Your task to perform on an android device: Open internet settings Image 0: 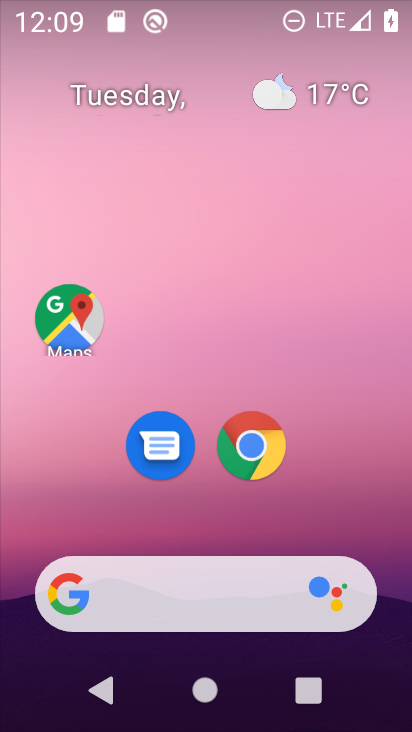
Step 0: drag from (400, 598) to (349, 193)
Your task to perform on an android device: Open internet settings Image 1: 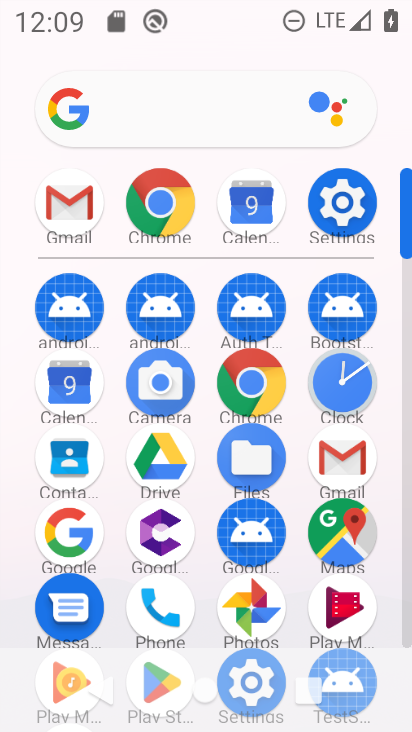
Step 1: click (408, 625)
Your task to perform on an android device: Open internet settings Image 2: 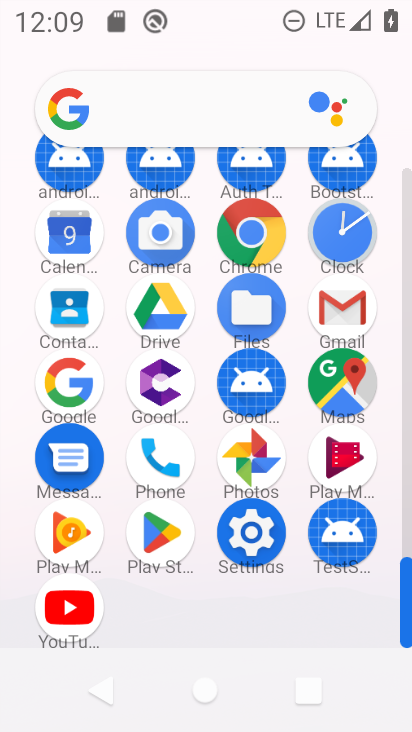
Step 2: click (250, 533)
Your task to perform on an android device: Open internet settings Image 3: 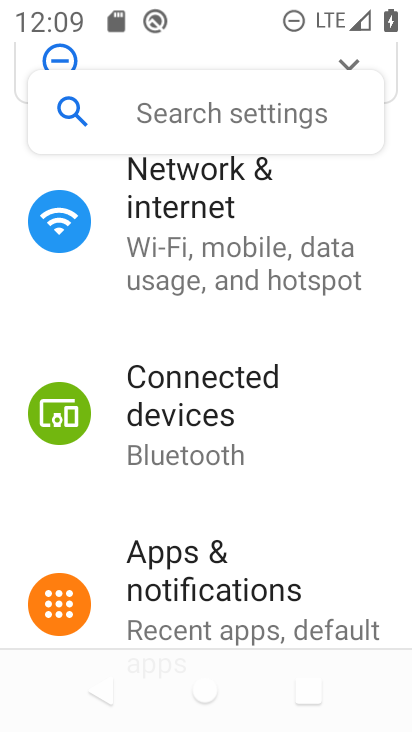
Step 3: click (205, 221)
Your task to perform on an android device: Open internet settings Image 4: 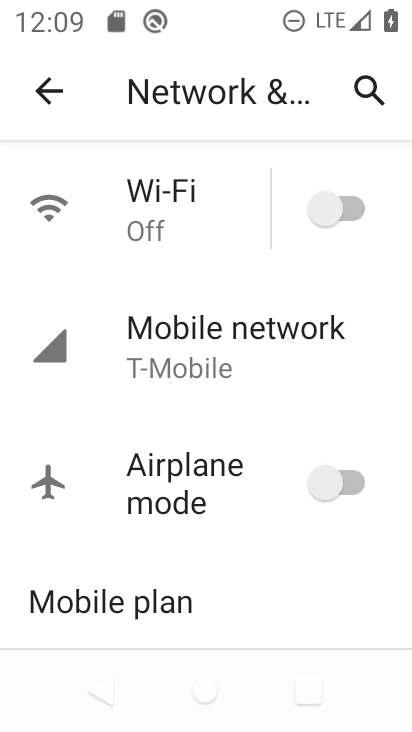
Step 4: click (223, 343)
Your task to perform on an android device: Open internet settings Image 5: 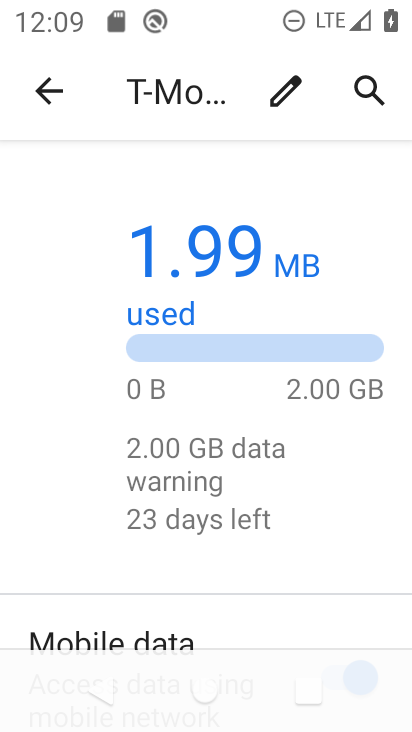
Step 5: task complete